Your task to perform on an android device: turn on airplane mode Image 0: 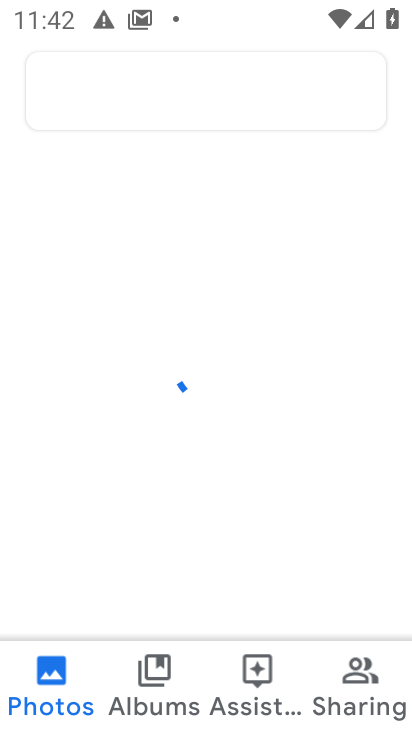
Step 0: press back button
Your task to perform on an android device: turn on airplane mode Image 1: 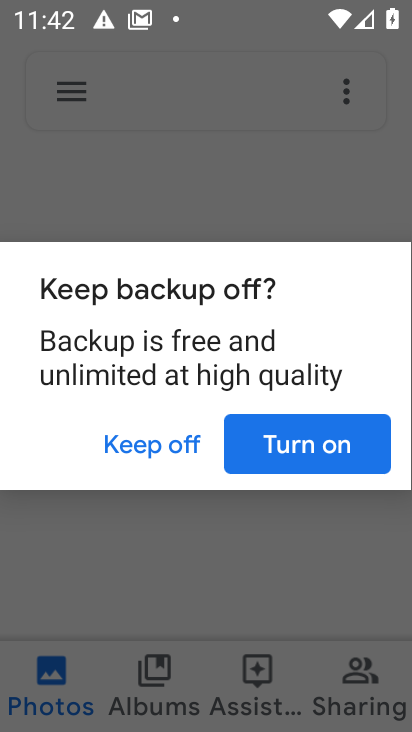
Step 1: press home button
Your task to perform on an android device: turn on airplane mode Image 2: 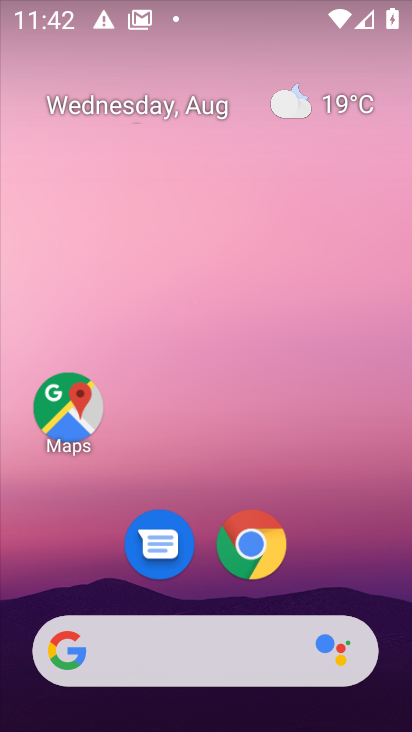
Step 2: drag from (387, 549) to (368, 133)
Your task to perform on an android device: turn on airplane mode Image 3: 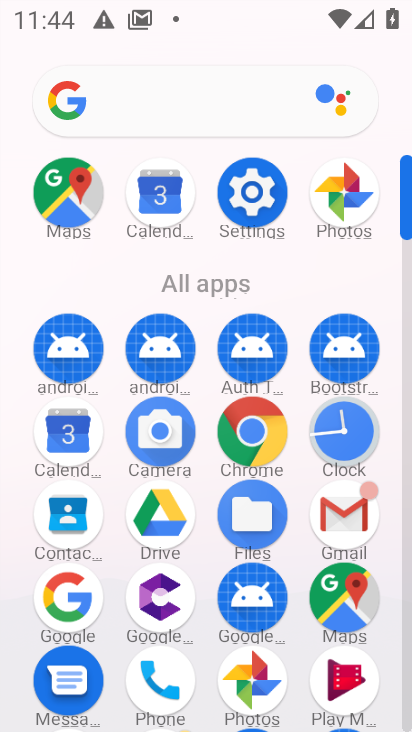
Step 3: click (275, 190)
Your task to perform on an android device: turn on airplane mode Image 4: 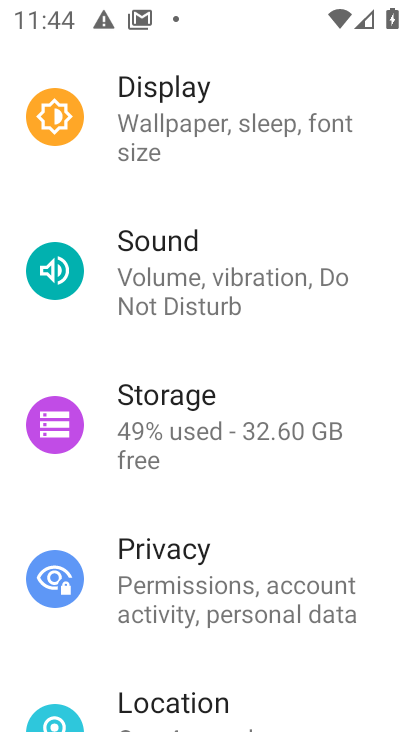
Step 4: drag from (341, 86) to (359, 578)
Your task to perform on an android device: turn on airplane mode Image 5: 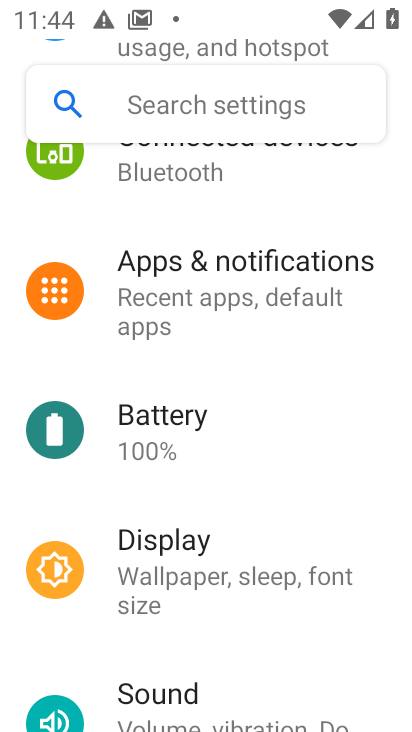
Step 5: drag from (324, 172) to (320, 514)
Your task to perform on an android device: turn on airplane mode Image 6: 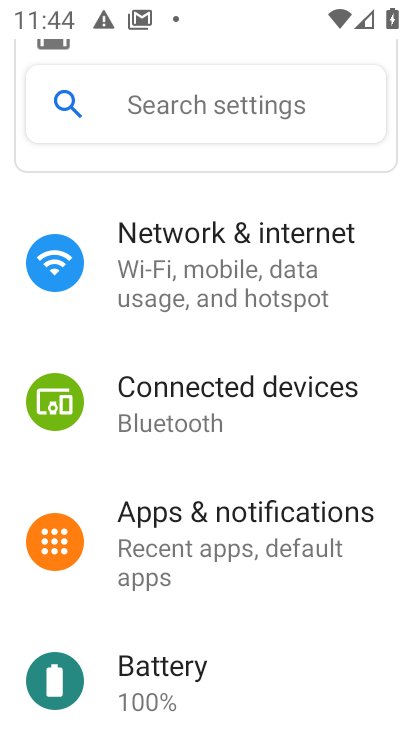
Step 6: click (209, 252)
Your task to perform on an android device: turn on airplane mode Image 7: 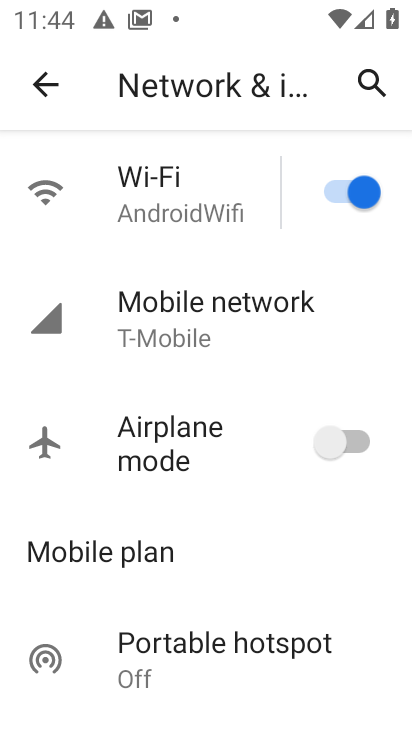
Step 7: click (350, 441)
Your task to perform on an android device: turn on airplane mode Image 8: 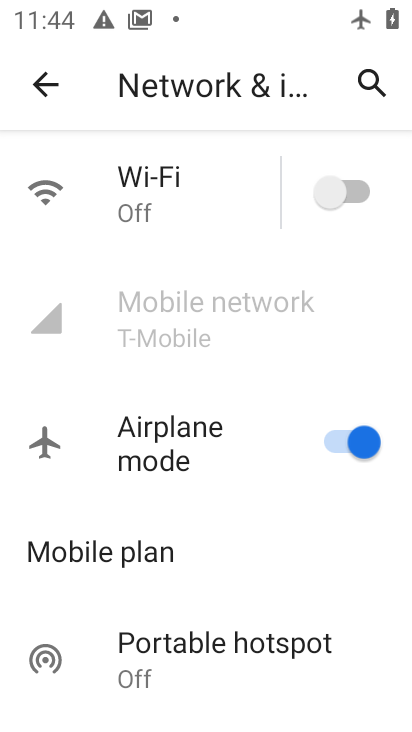
Step 8: task complete